Your task to perform on an android device: open sync settings in chrome Image 0: 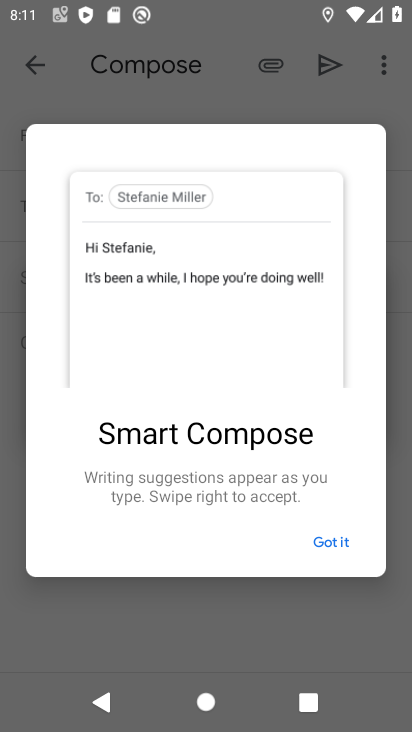
Step 0: press home button
Your task to perform on an android device: open sync settings in chrome Image 1: 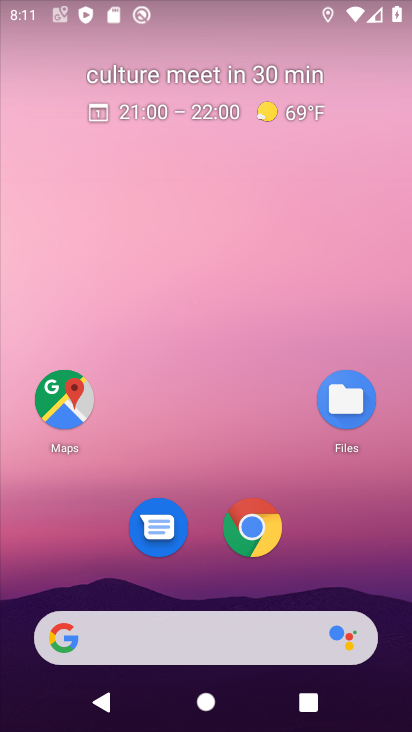
Step 1: click (258, 523)
Your task to perform on an android device: open sync settings in chrome Image 2: 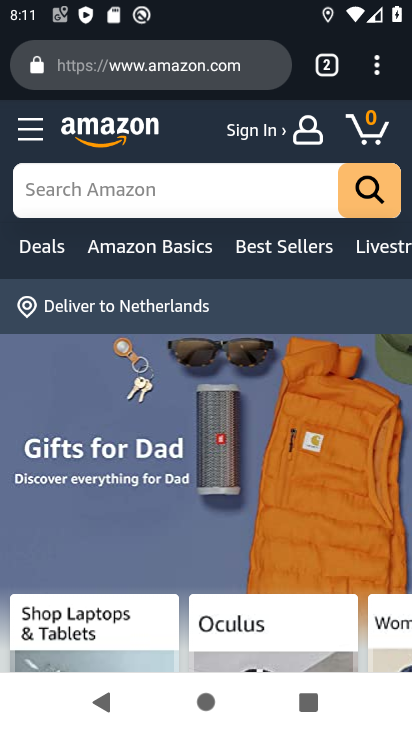
Step 2: click (372, 76)
Your task to perform on an android device: open sync settings in chrome Image 3: 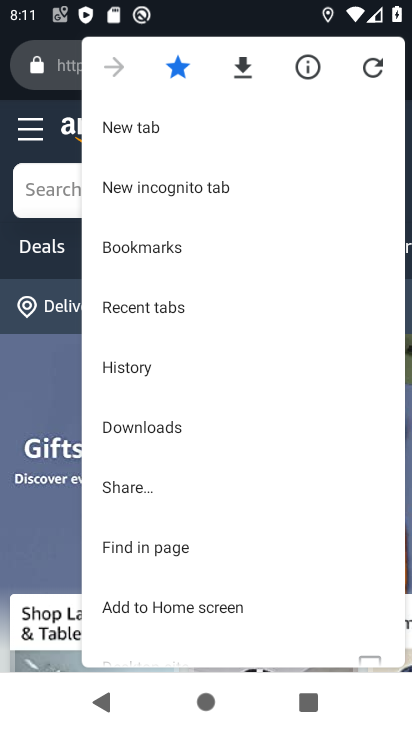
Step 3: drag from (253, 610) to (228, 216)
Your task to perform on an android device: open sync settings in chrome Image 4: 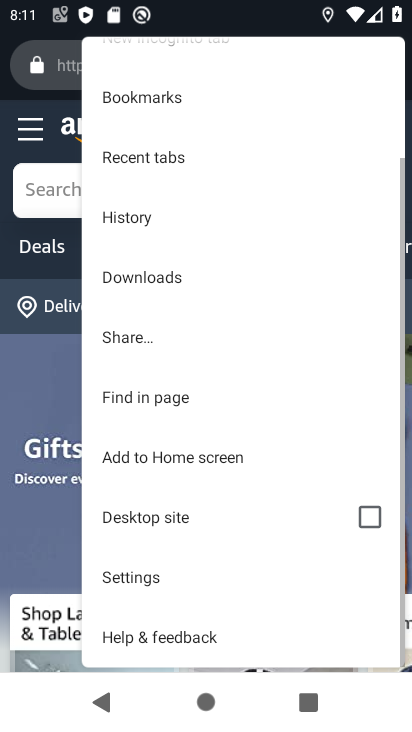
Step 4: click (133, 582)
Your task to perform on an android device: open sync settings in chrome Image 5: 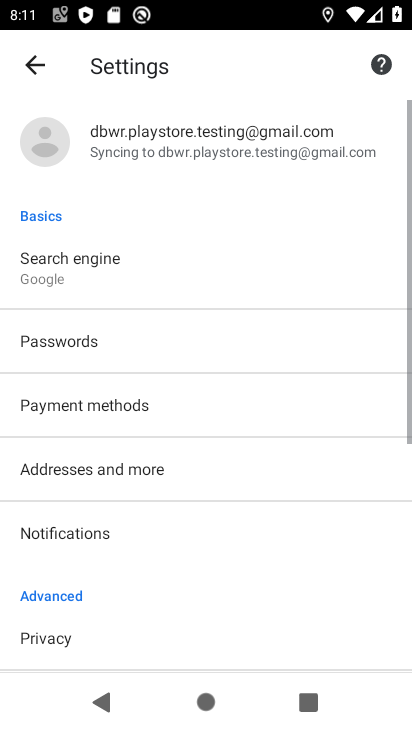
Step 5: drag from (164, 618) to (158, 297)
Your task to perform on an android device: open sync settings in chrome Image 6: 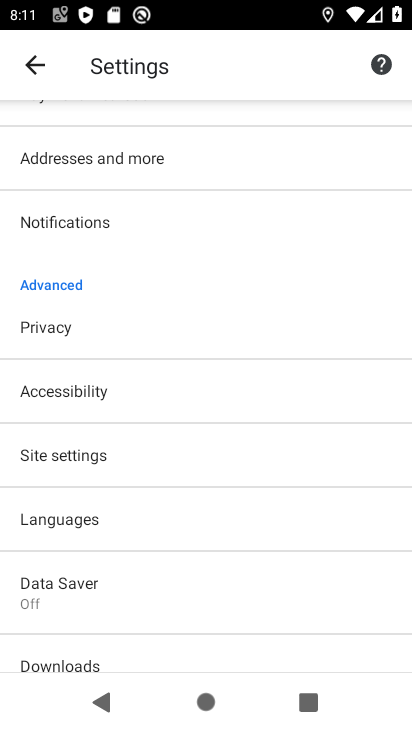
Step 6: click (84, 465)
Your task to perform on an android device: open sync settings in chrome Image 7: 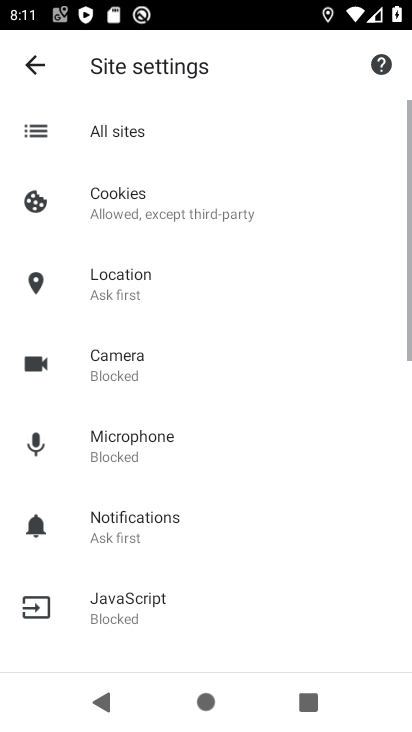
Step 7: drag from (183, 563) to (159, 301)
Your task to perform on an android device: open sync settings in chrome Image 8: 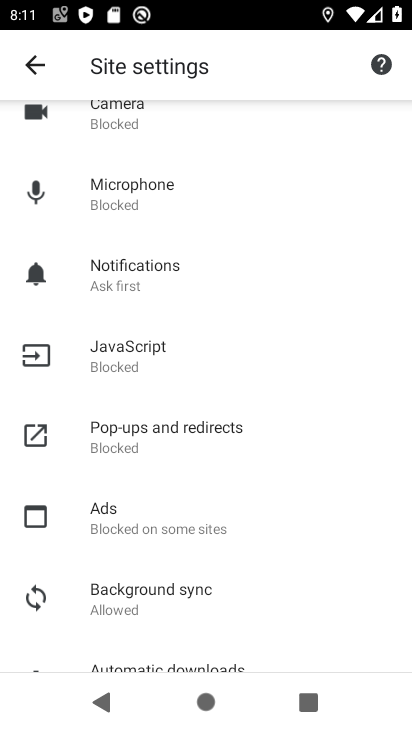
Step 8: click (191, 597)
Your task to perform on an android device: open sync settings in chrome Image 9: 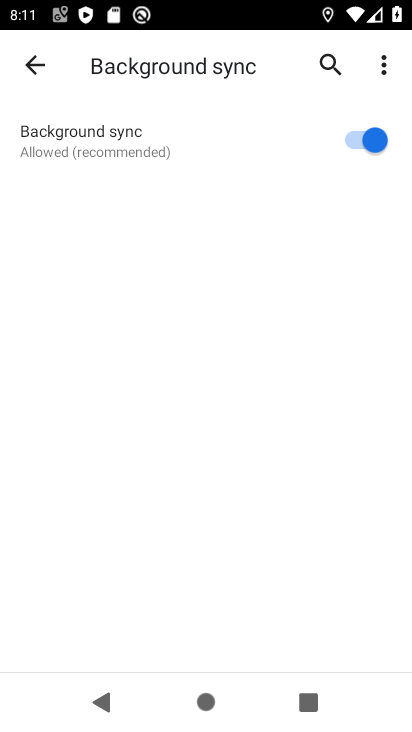
Step 9: task complete